Your task to perform on an android device: open app "Paramount+ | Peak Streaming" Image 0: 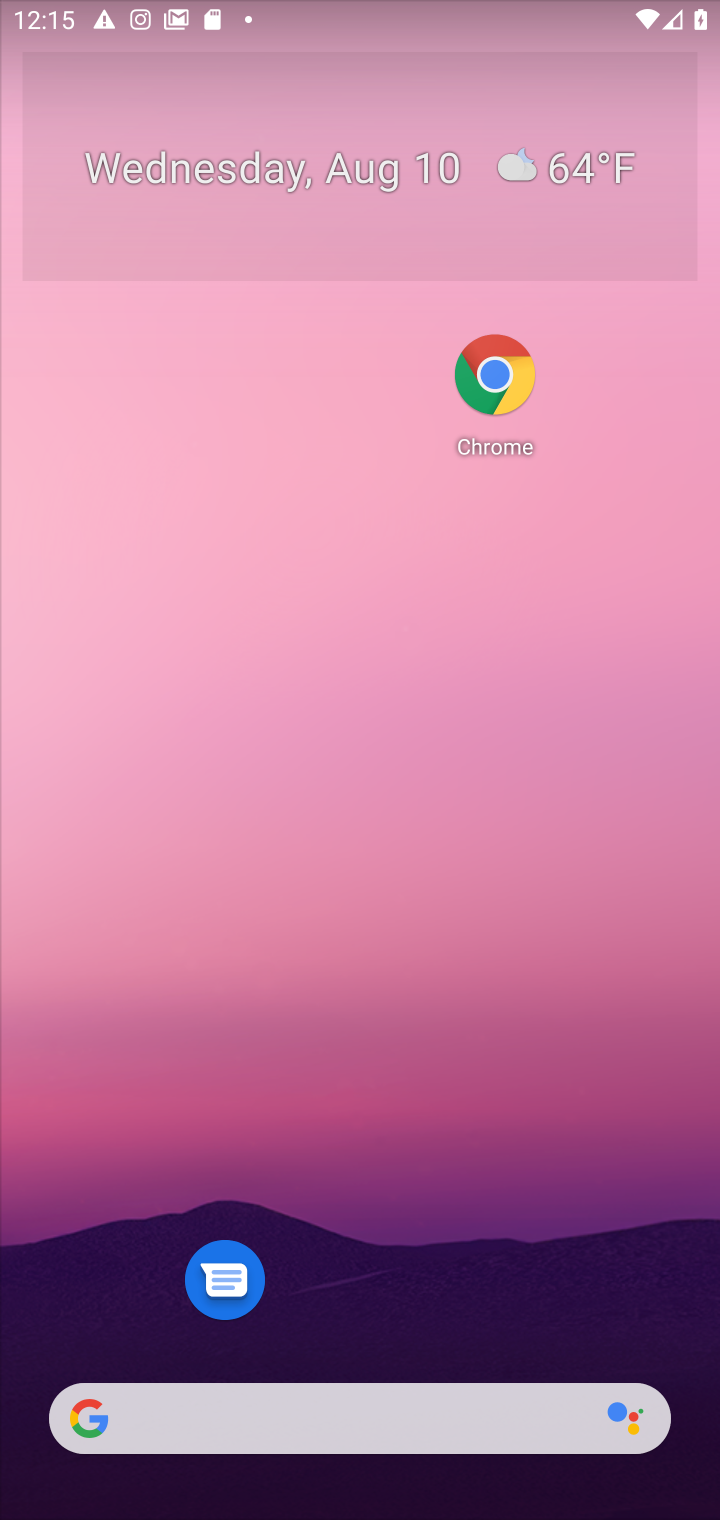
Step 0: drag from (441, 1342) to (370, 110)
Your task to perform on an android device: open app "Paramount+ | Peak Streaming" Image 1: 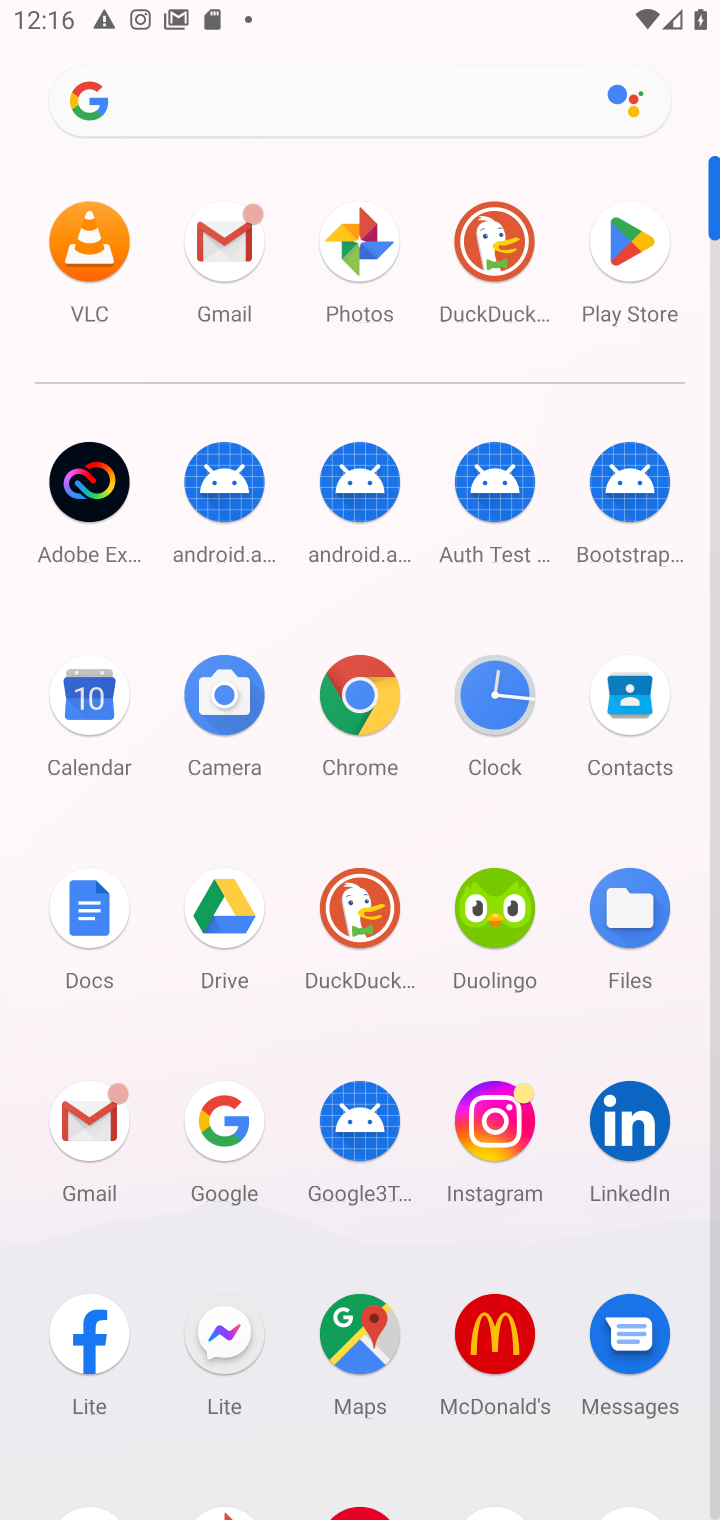
Step 1: click (604, 268)
Your task to perform on an android device: open app "Paramount+ | Peak Streaming" Image 2: 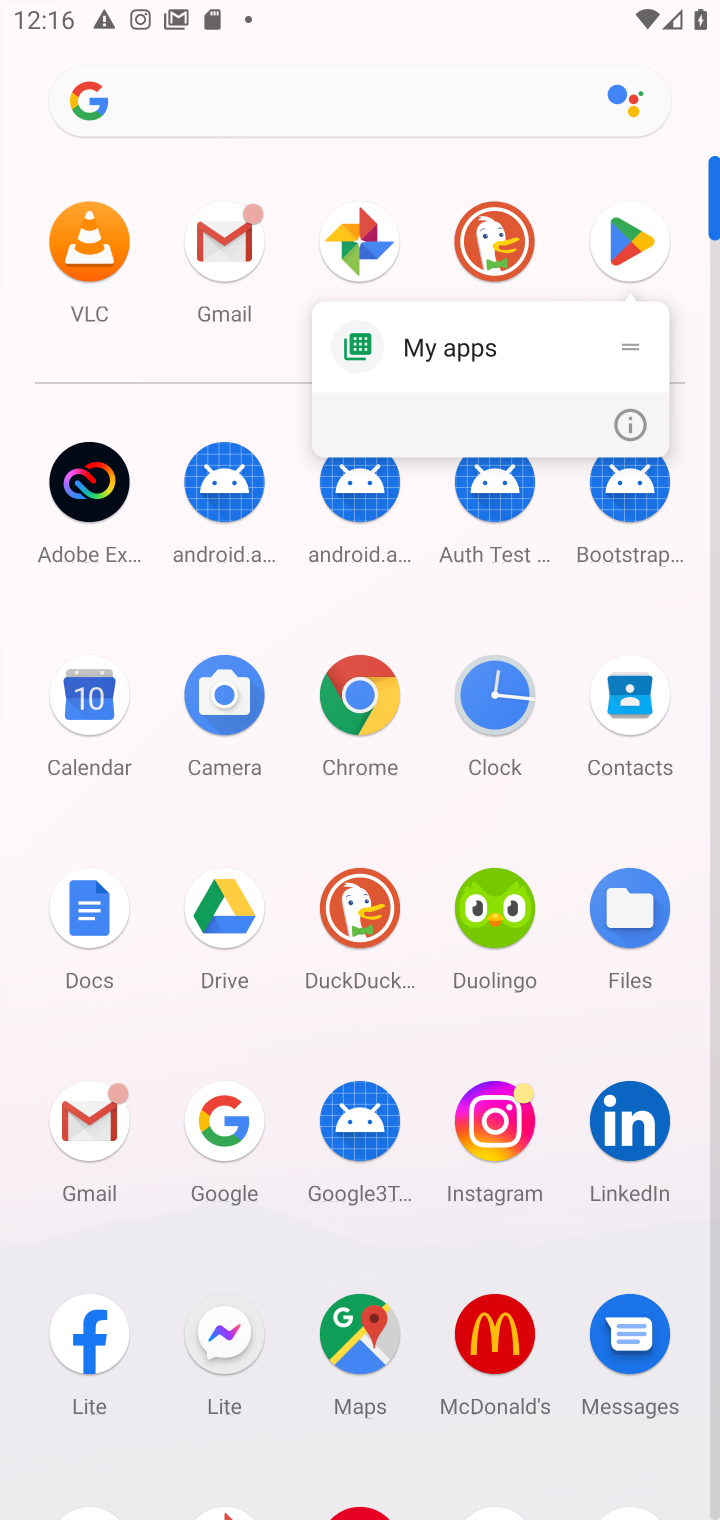
Step 2: click (618, 224)
Your task to perform on an android device: open app "Paramount+ | Peak Streaming" Image 3: 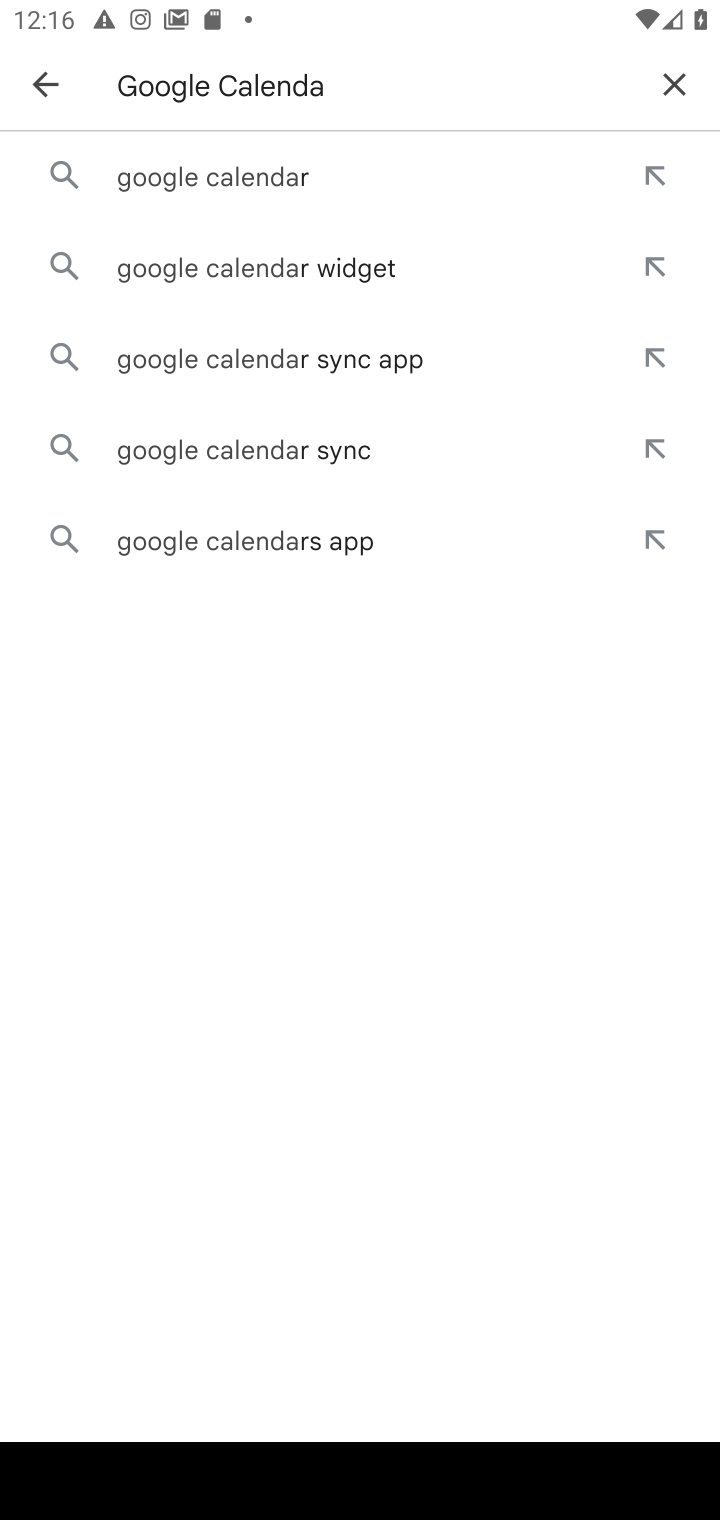
Step 3: click (671, 71)
Your task to perform on an android device: open app "Paramount+ | Peak Streaming" Image 4: 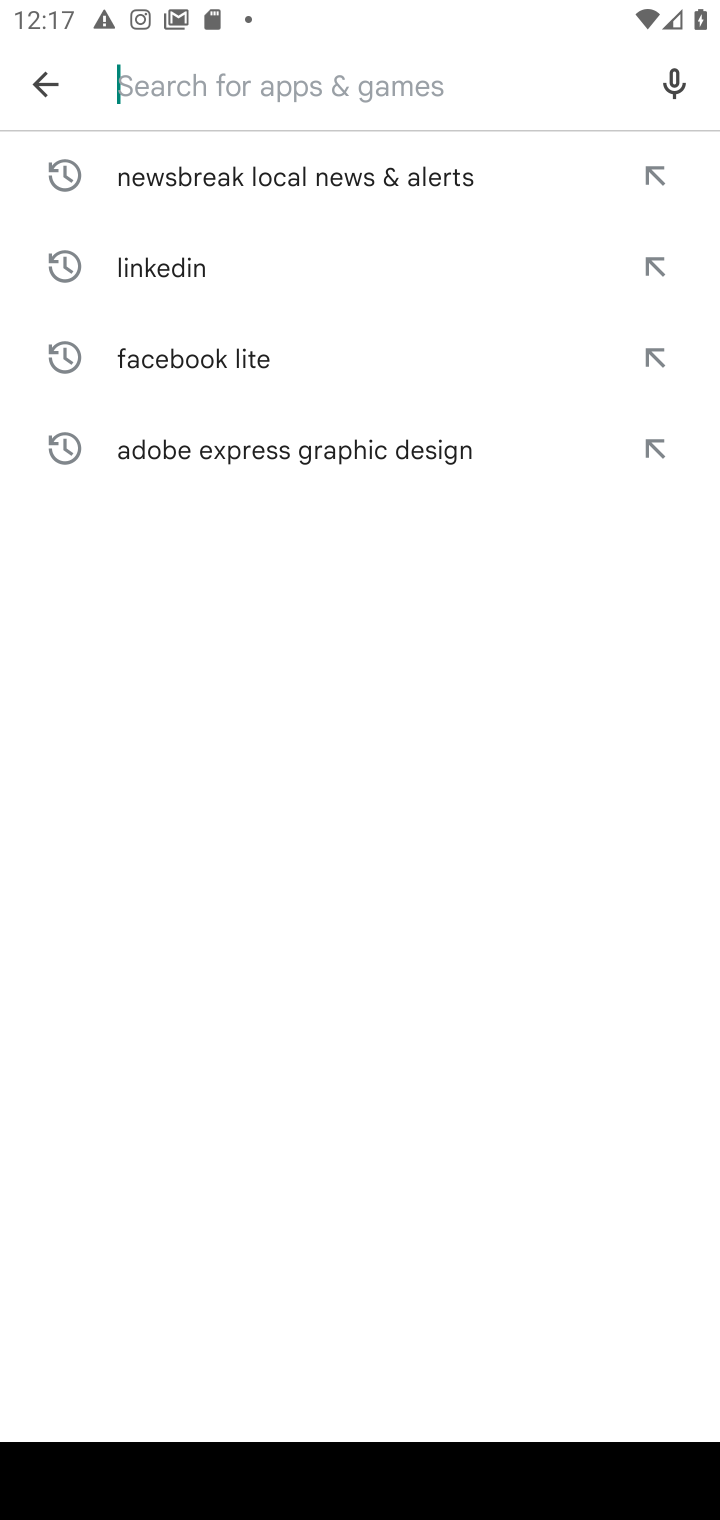
Step 4: press home button
Your task to perform on an android device: open app "Paramount+ | Peak Streaming" Image 5: 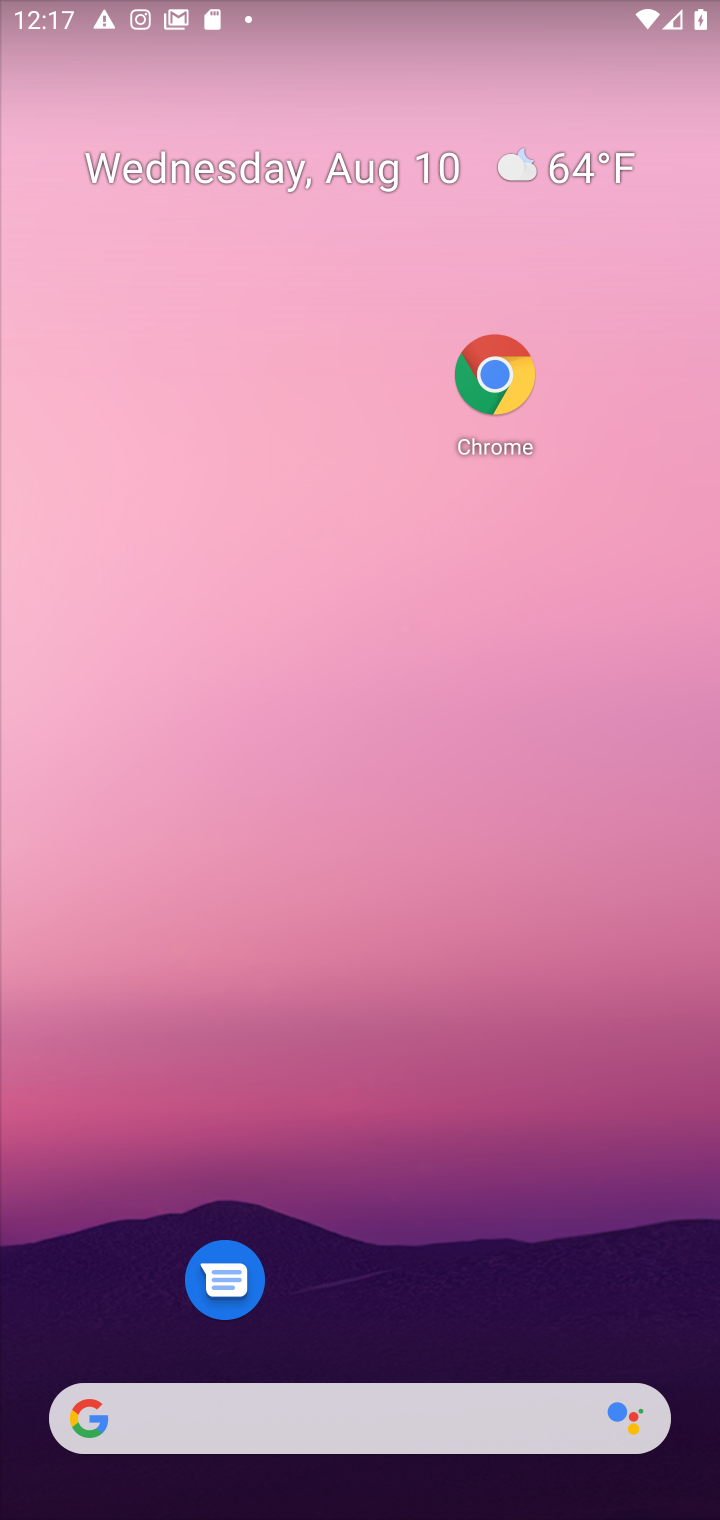
Step 5: drag from (439, 1338) to (426, 252)
Your task to perform on an android device: open app "Paramount+ | Peak Streaming" Image 6: 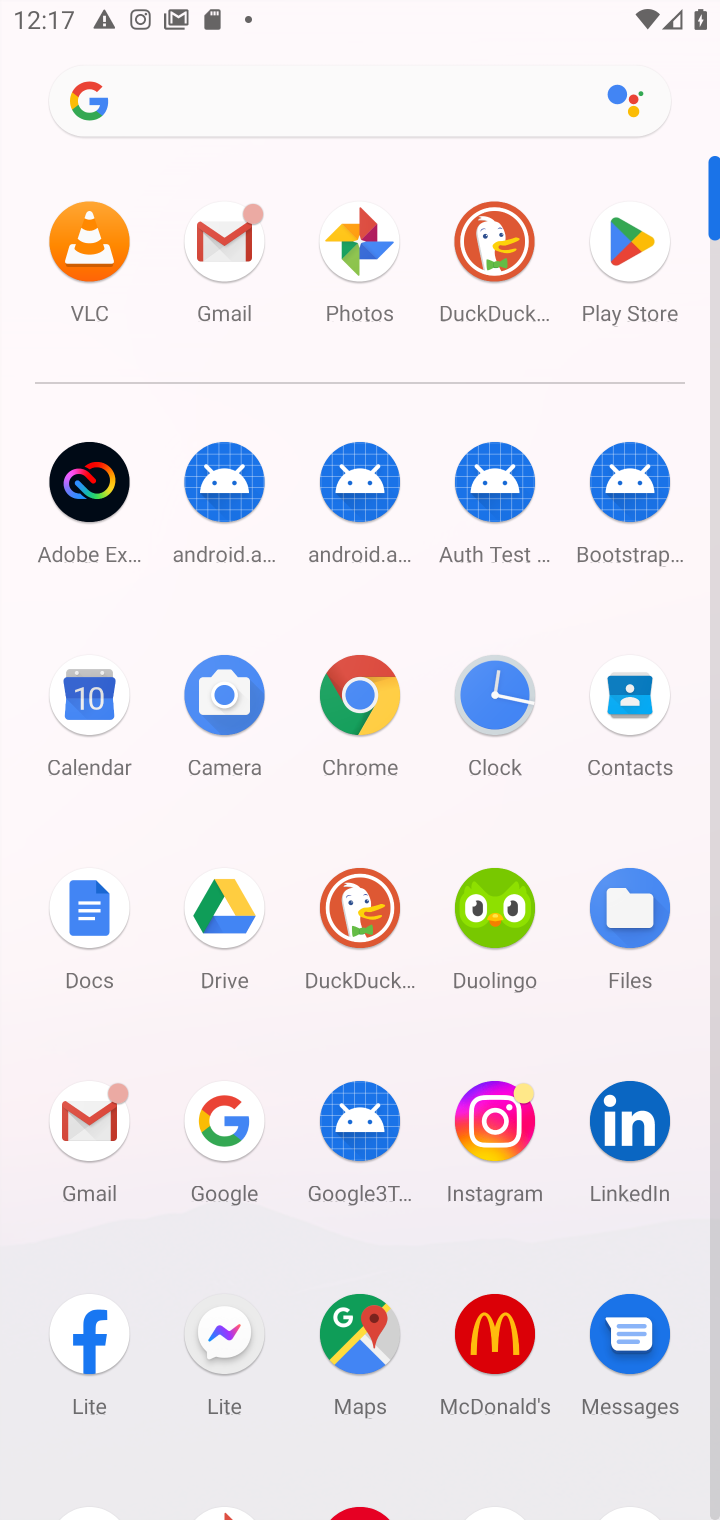
Step 6: click (618, 269)
Your task to perform on an android device: open app "Paramount+ | Peak Streaming" Image 7: 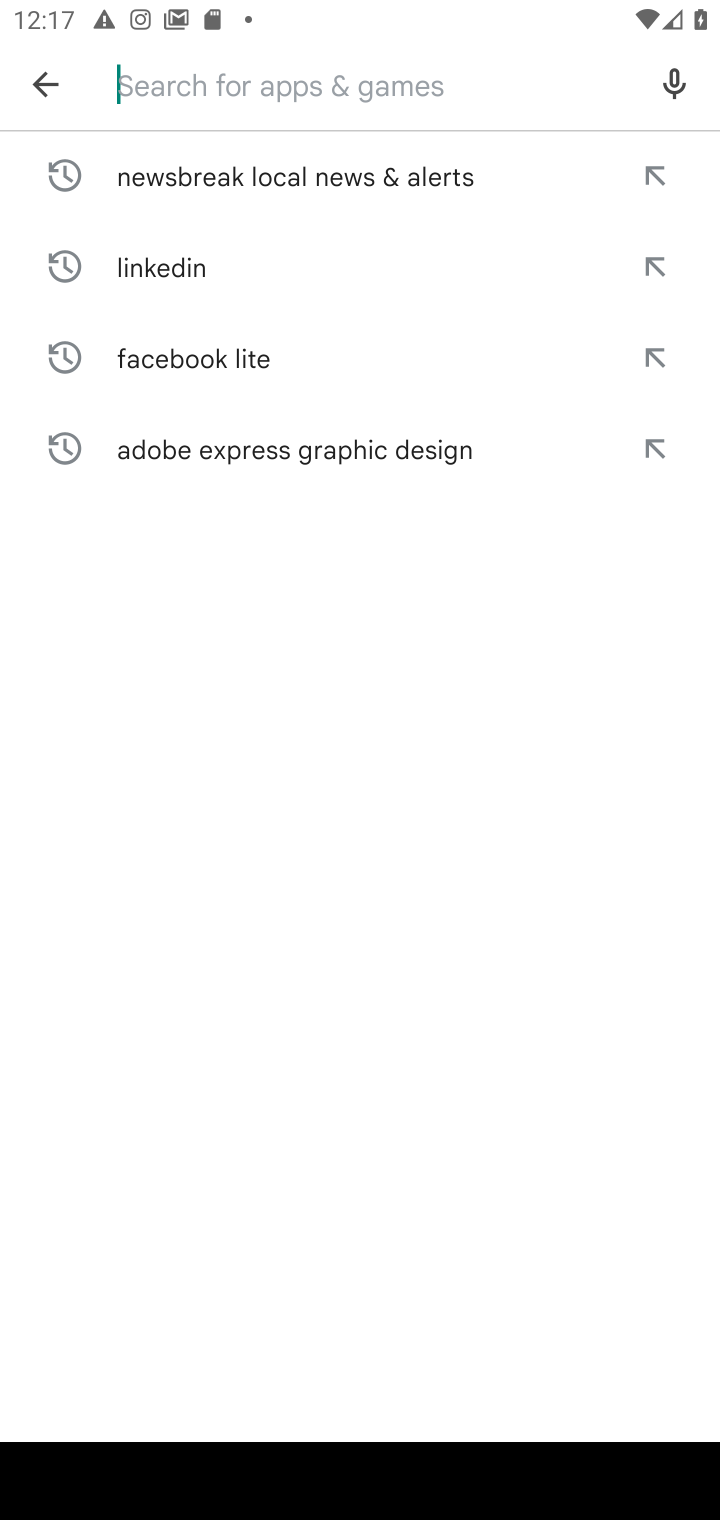
Step 7: type "Paramount+"
Your task to perform on an android device: open app "Paramount+ | Peak Streaming" Image 8: 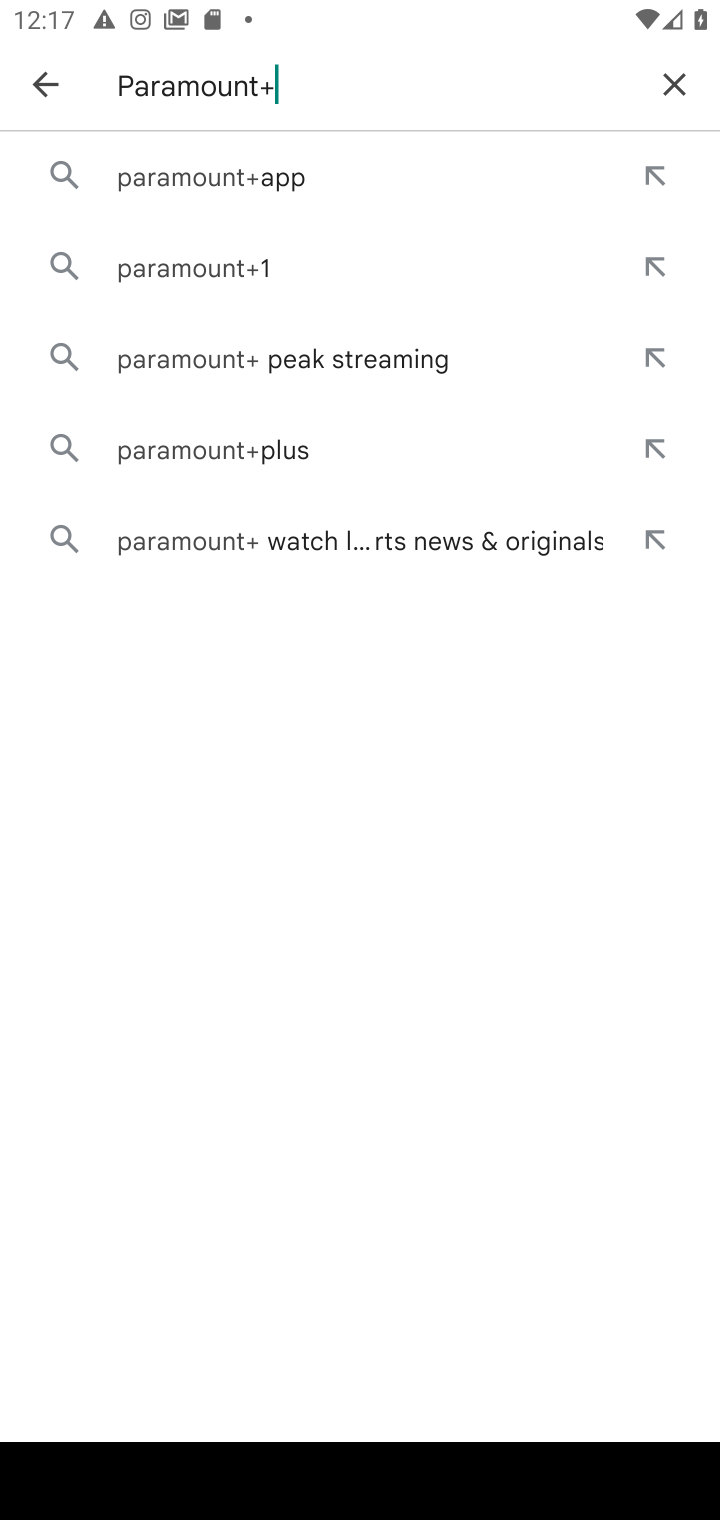
Step 8: click (210, 190)
Your task to perform on an android device: open app "Paramount+ | Peak Streaming" Image 9: 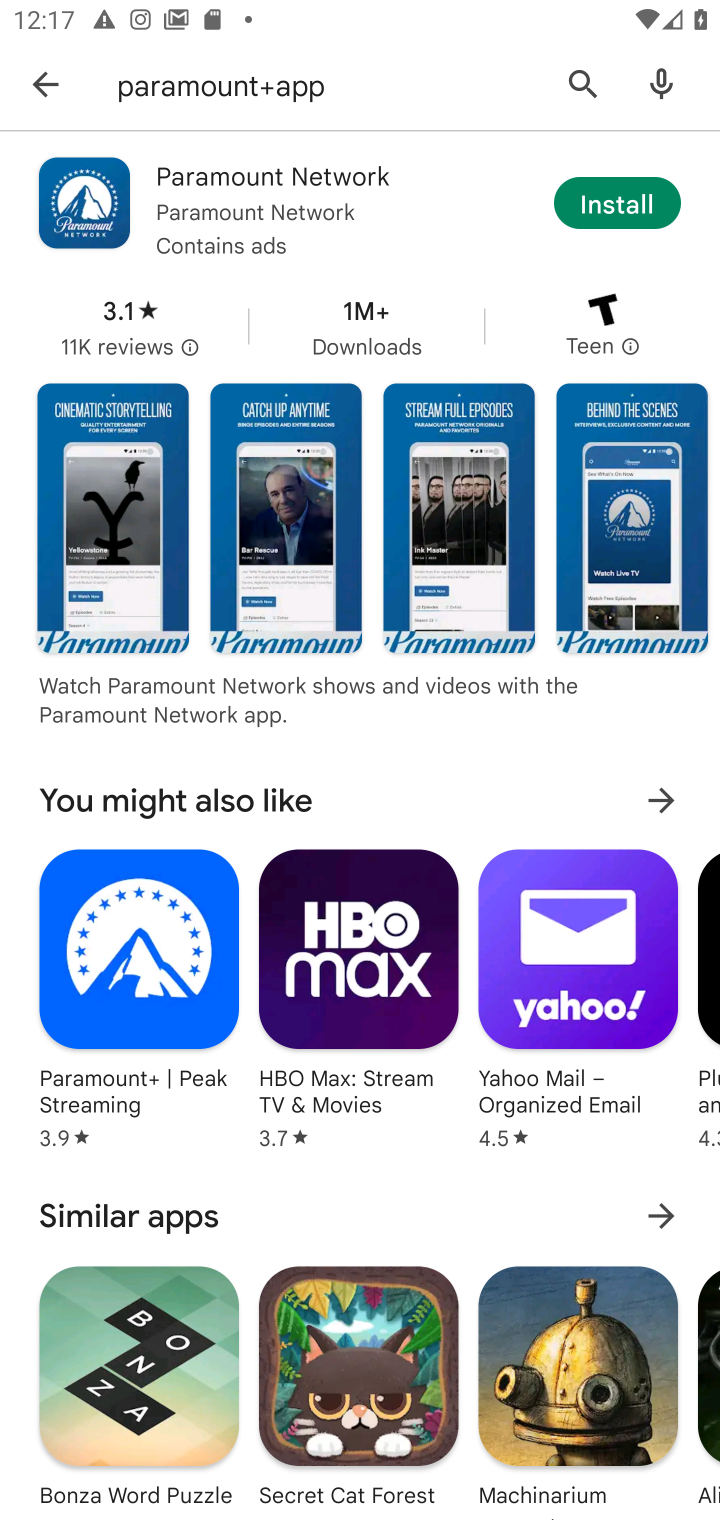
Step 9: task complete